Your task to perform on an android device: Open sound settings Image 0: 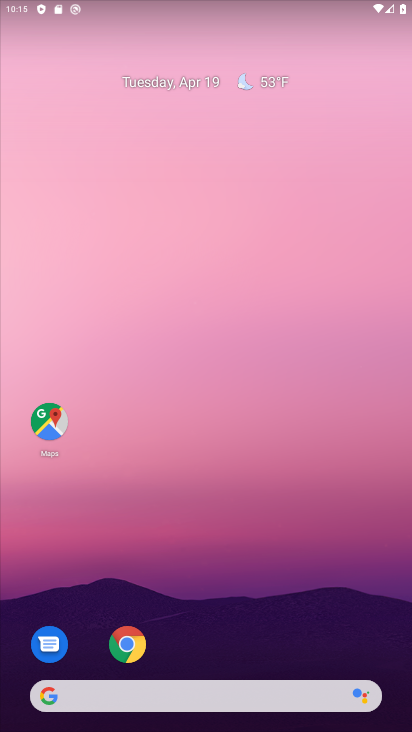
Step 0: drag from (193, 585) to (168, 40)
Your task to perform on an android device: Open sound settings Image 1: 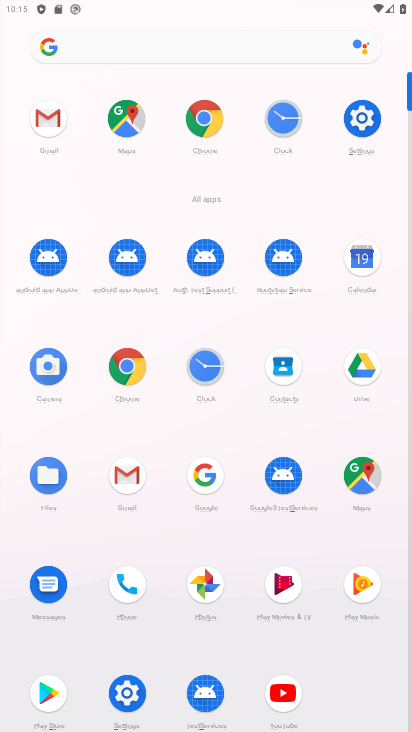
Step 1: click (353, 118)
Your task to perform on an android device: Open sound settings Image 2: 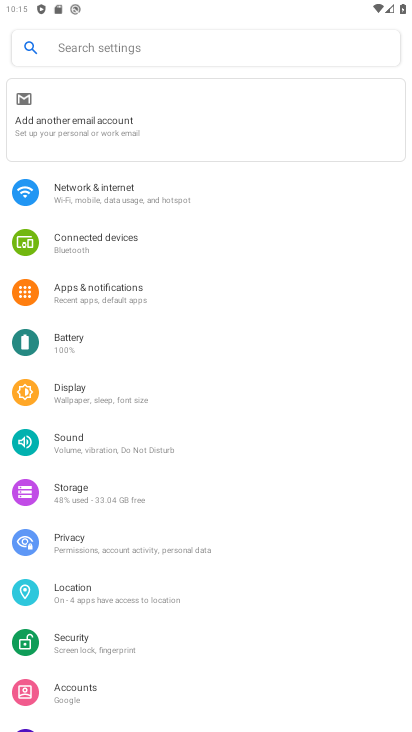
Step 2: click (125, 438)
Your task to perform on an android device: Open sound settings Image 3: 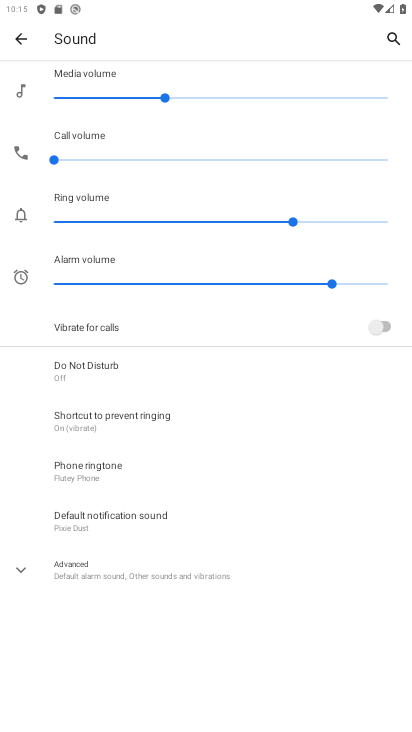
Step 3: task complete